Your task to perform on an android device: turn off notifications in google photos Image 0: 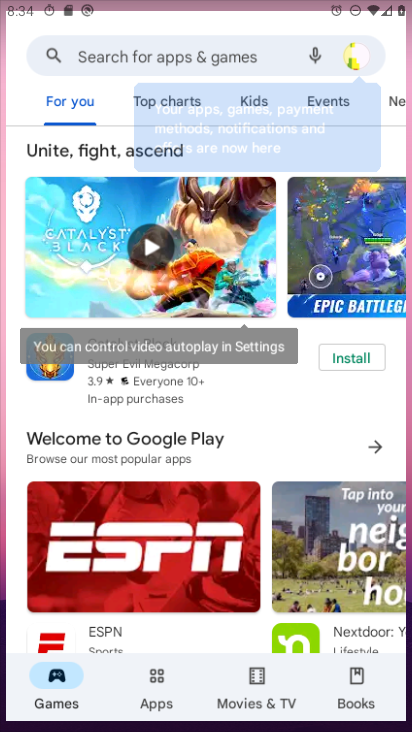
Step 0: drag from (323, 651) to (360, 166)
Your task to perform on an android device: turn off notifications in google photos Image 1: 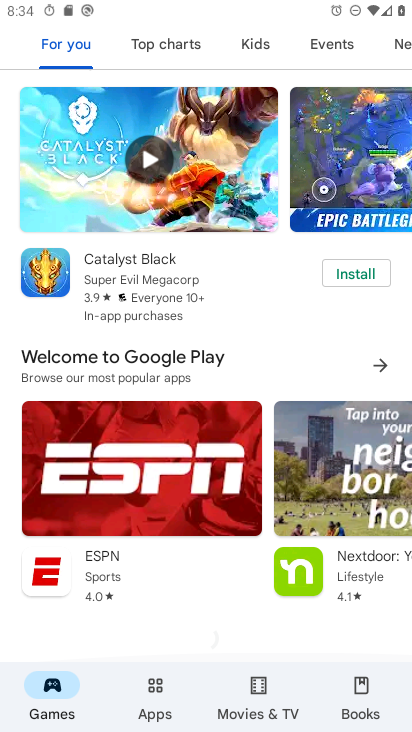
Step 1: press home button
Your task to perform on an android device: turn off notifications in google photos Image 2: 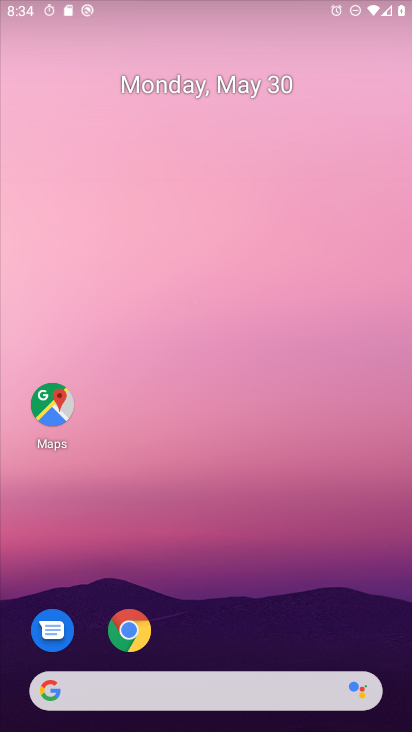
Step 2: drag from (383, 632) to (304, 5)
Your task to perform on an android device: turn off notifications in google photos Image 3: 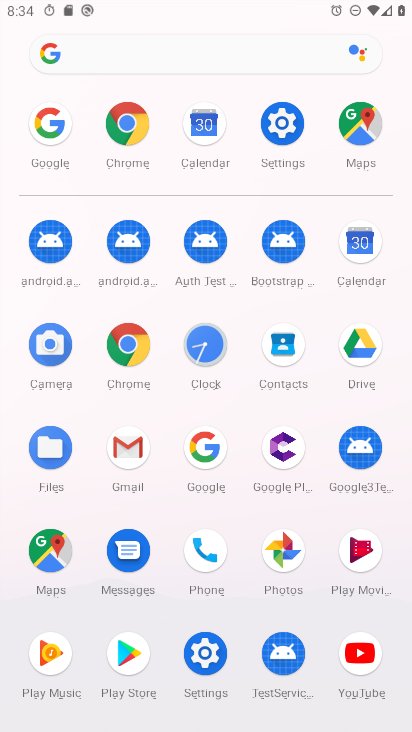
Step 3: click (296, 553)
Your task to perform on an android device: turn off notifications in google photos Image 4: 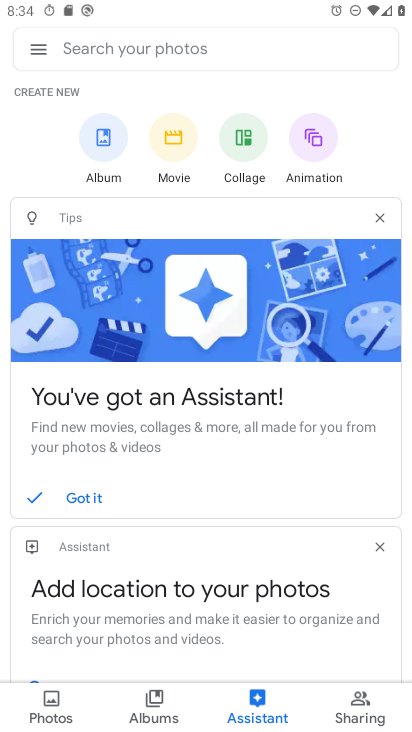
Step 4: click (40, 51)
Your task to perform on an android device: turn off notifications in google photos Image 5: 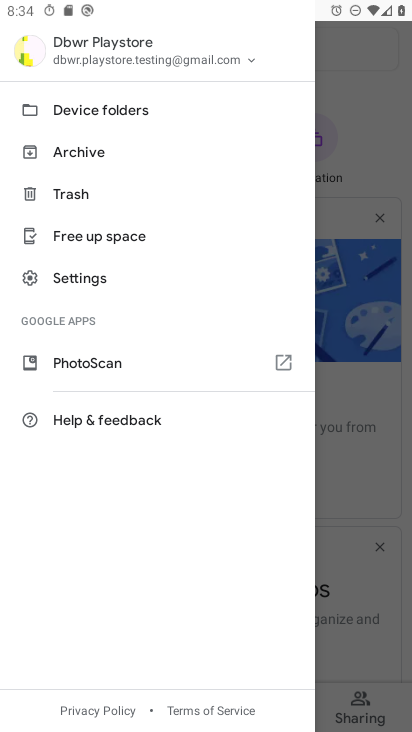
Step 5: click (107, 286)
Your task to perform on an android device: turn off notifications in google photos Image 6: 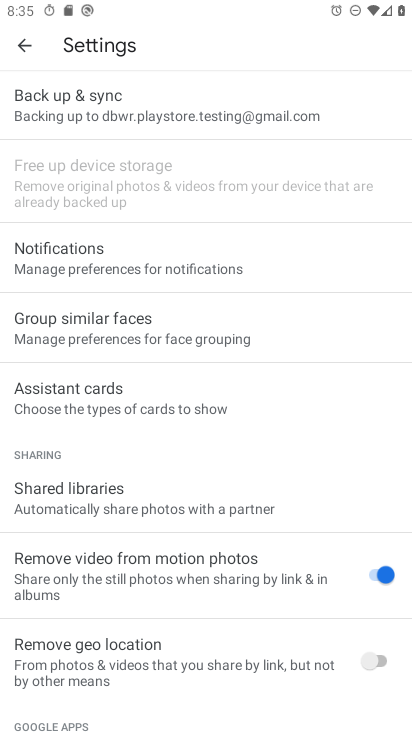
Step 6: click (115, 278)
Your task to perform on an android device: turn off notifications in google photos Image 7: 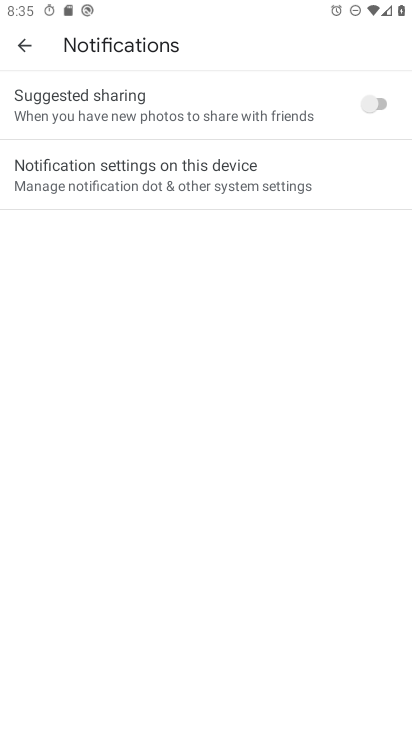
Step 7: task complete